Your task to perform on an android device: What's the weather going to be this weekend? Image 0: 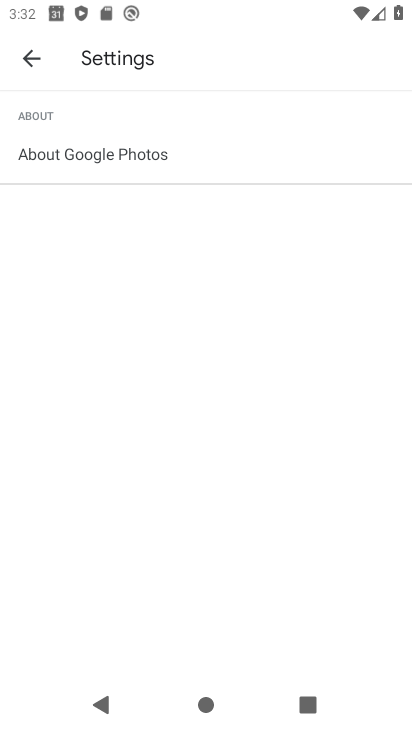
Step 0: press back button
Your task to perform on an android device: What's the weather going to be this weekend? Image 1: 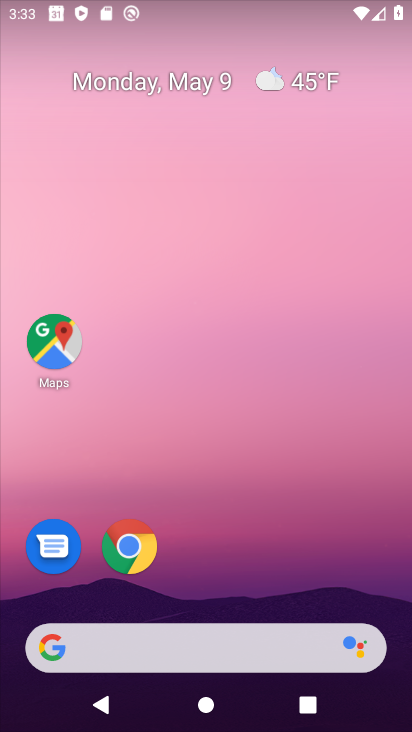
Step 1: click (309, 93)
Your task to perform on an android device: What's the weather going to be this weekend? Image 2: 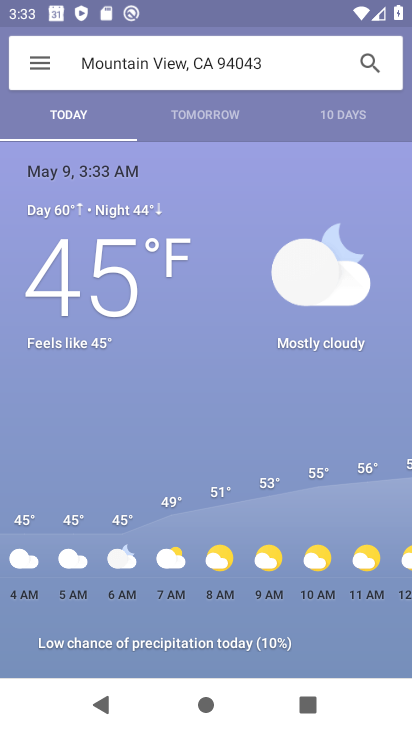
Step 2: click (322, 121)
Your task to perform on an android device: What's the weather going to be this weekend? Image 3: 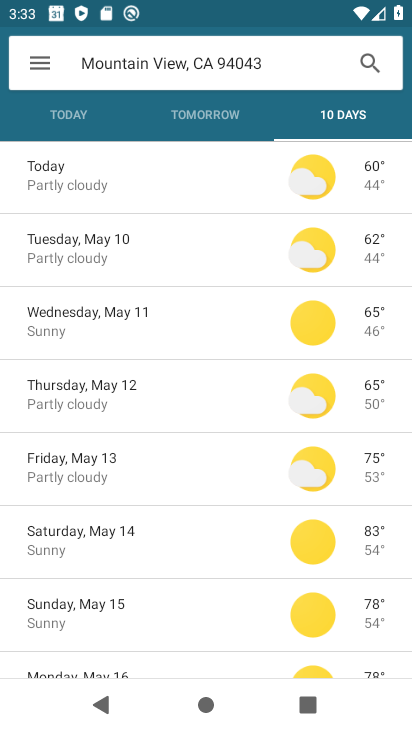
Step 3: task complete